Your task to perform on an android device: open app "Grab" (install if not already installed) and enter user name: "interspersion@gmail.com" and password: "aristocrats" Image 0: 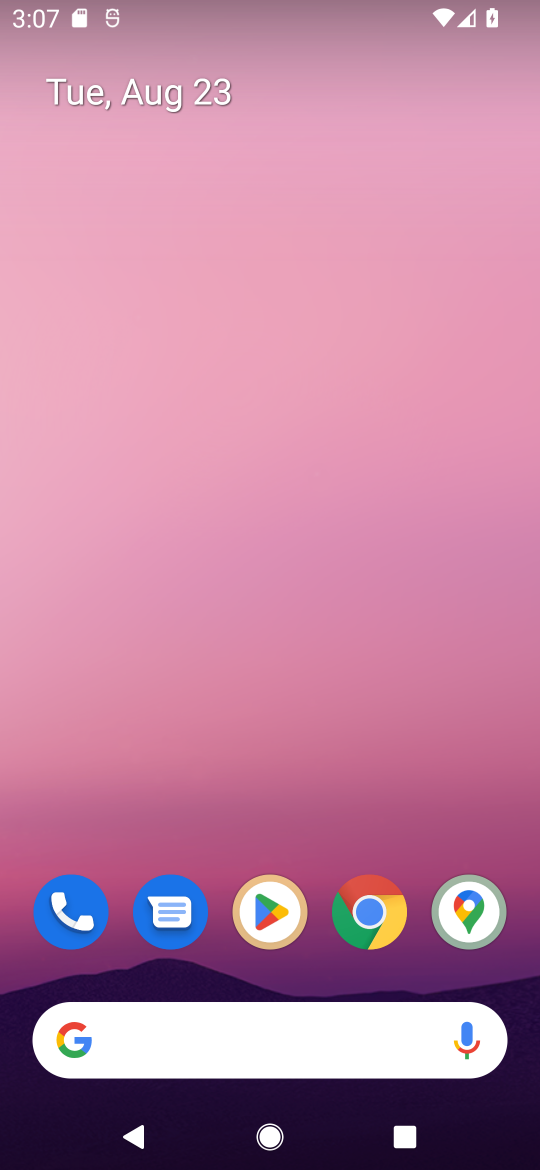
Step 0: drag from (192, 1058) to (305, 222)
Your task to perform on an android device: open app "Grab" (install if not already installed) and enter user name: "interspersion@gmail.com" and password: "aristocrats" Image 1: 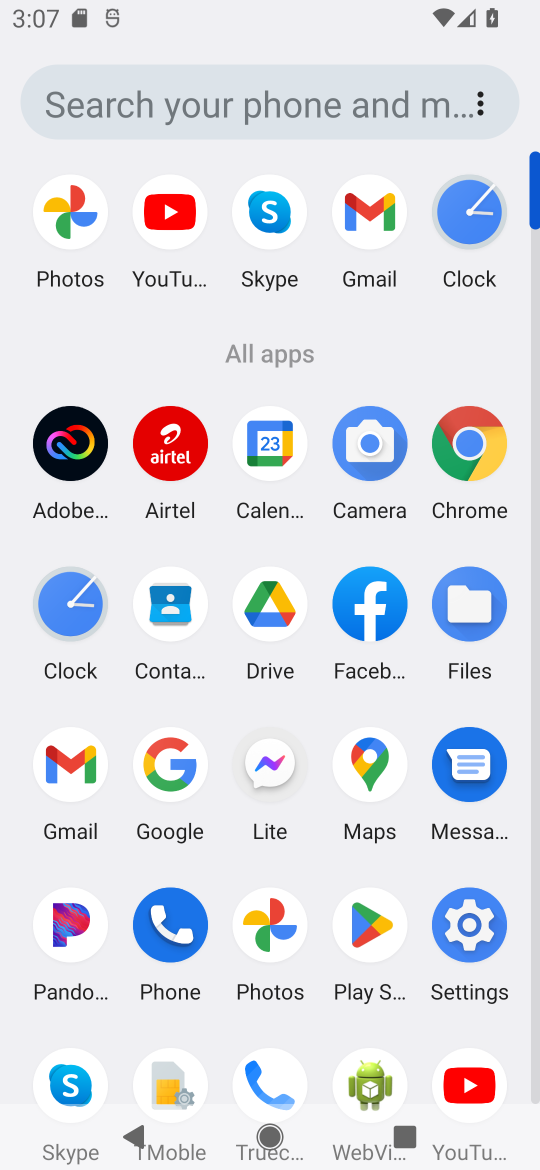
Step 1: click (371, 934)
Your task to perform on an android device: open app "Grab" (install if not already installed) and enter user name: "interspersion@gmail.com" and password: "aristocrats" Image 2: 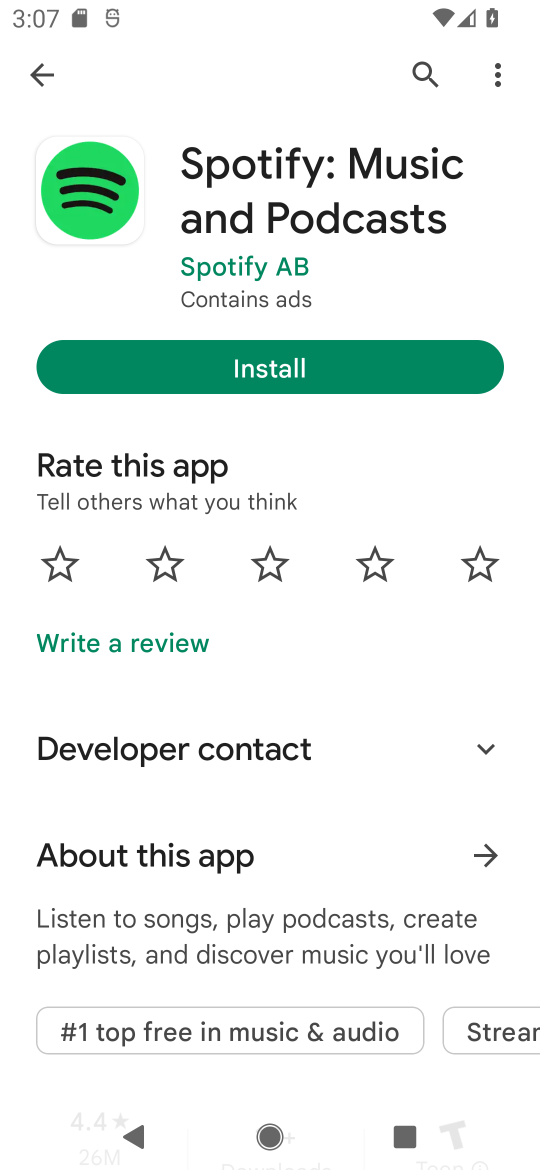
Step 2: press back button
Your task to perform on an android device: open app "Grab" (install if not already installed) and enter user name: "interspersion@gmail.com" and password: "aristocrats" Image 3: 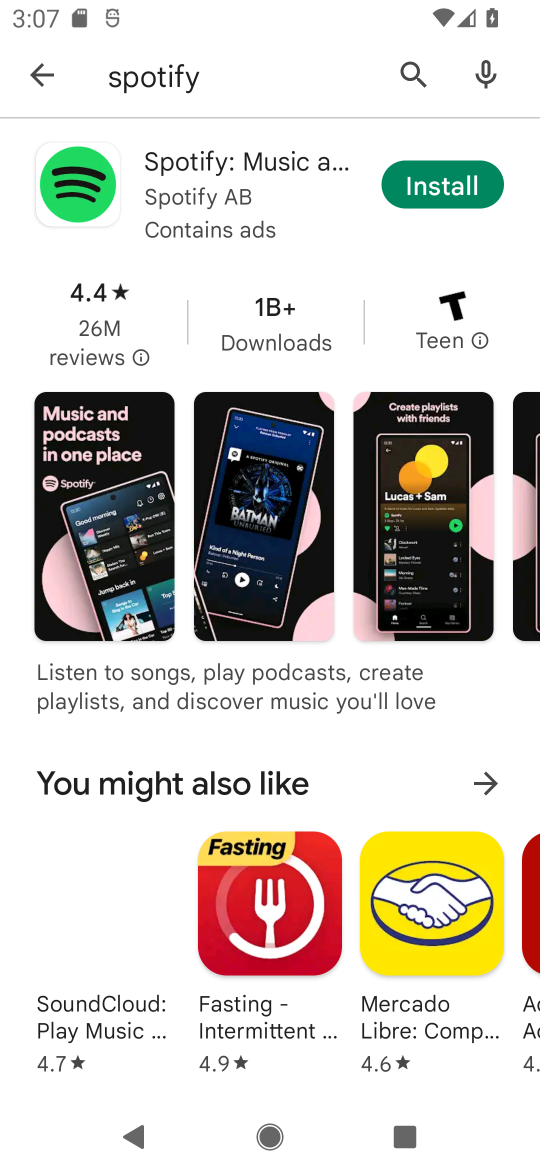
Step 3: press back button
Your task to perform on an android device: open app "Grab" (install if not already installed) and enter user name: "interspersion@gmail.com" and password: "aristocrats" Image 4: 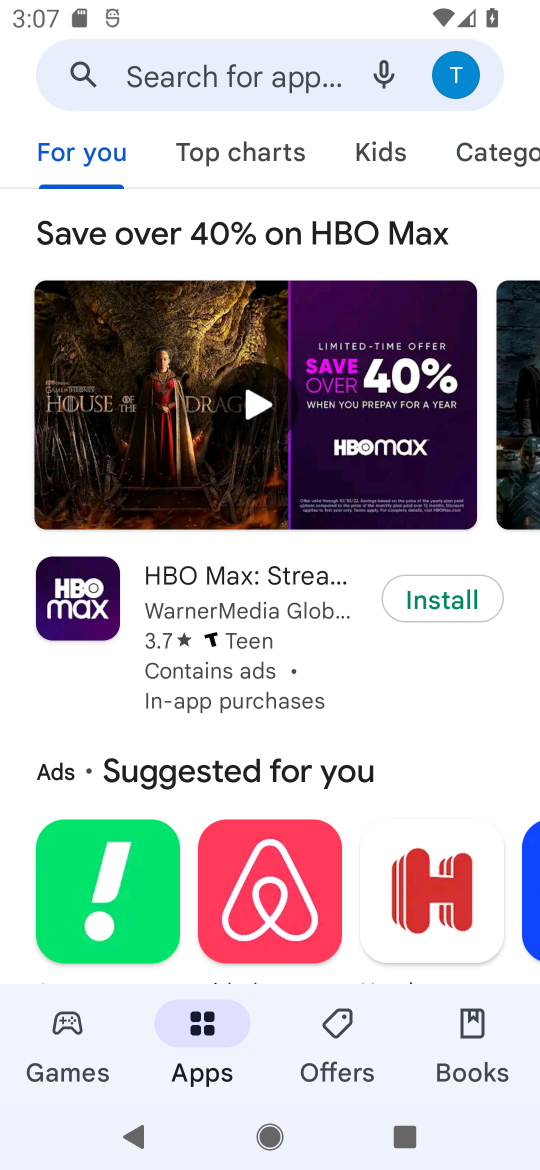
Step 4: click (201, 70)
Your task to perform on an android device: open app "Grab" (install if not already installed) and enter user name: "interspersion@gmail.com" and password: "aristocrats" Image 5: 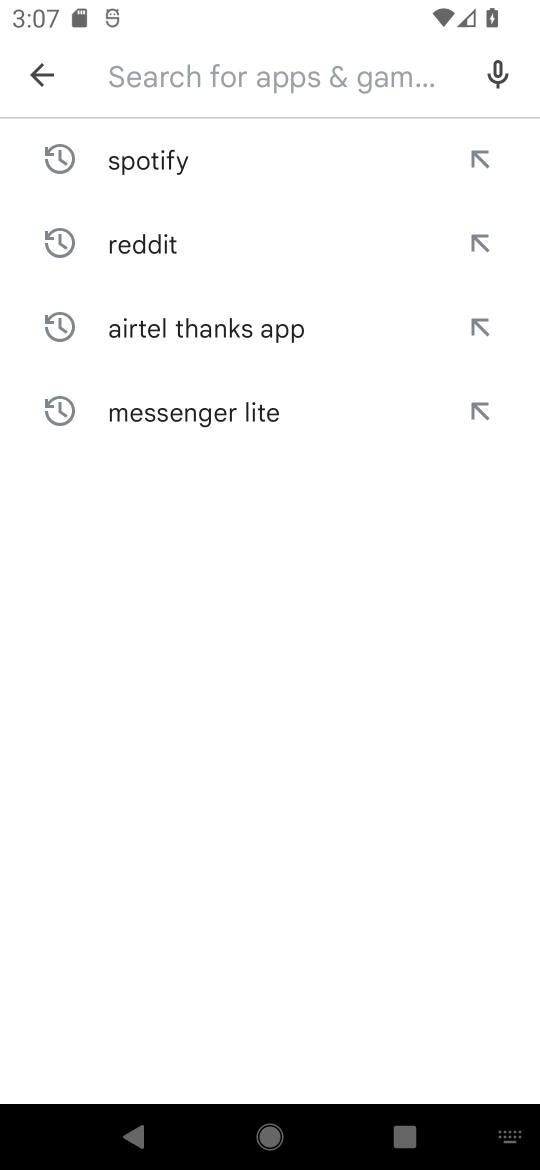
Step 5: type "Grab"
Your task to perform on an android device: open app "Grab" (install if not already installed) and enter user name: "interspersion@gmail.com" and password: "aristocrats" Image 6: 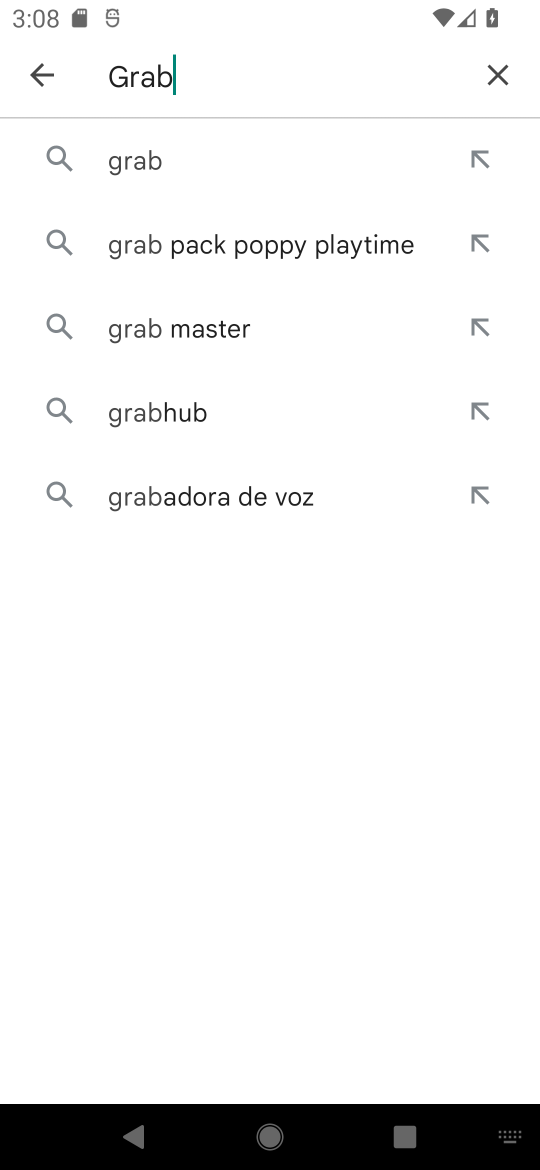
Step 6: click (130, 163)
Your task to perform on an android device: open app "Grab" (install if not already installed) and enter user name: "interspersion@gmail.com" and password: "aristocrats" Image 7: 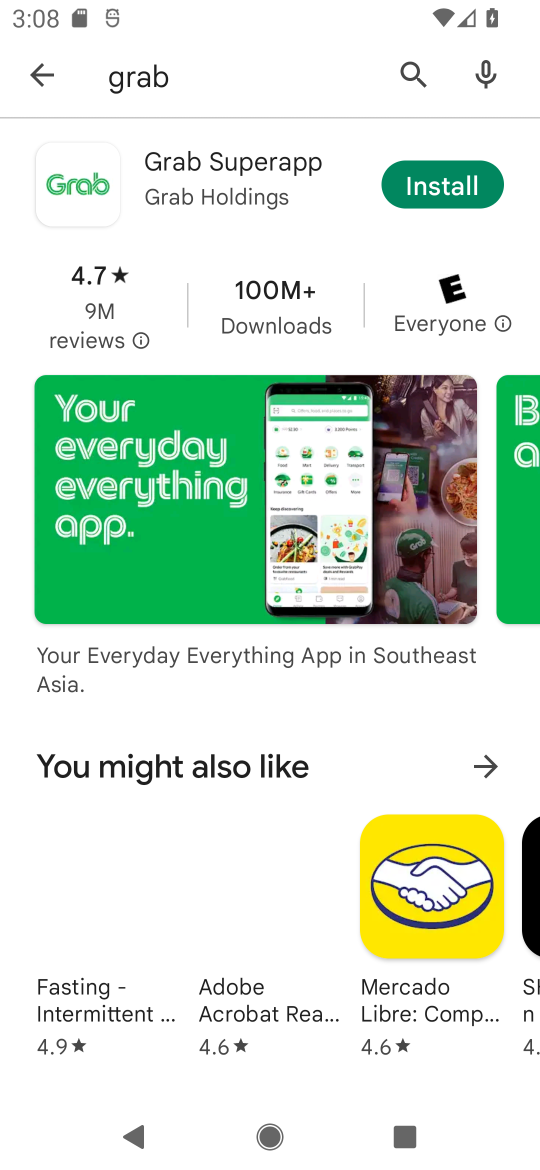
Step 7: click (437, 182)
Your task to perform on an android device: open app "Grab" (install if not already installed) and enter user name: "interspersion@gmail.com" and password: "aristocrats" Image 8: 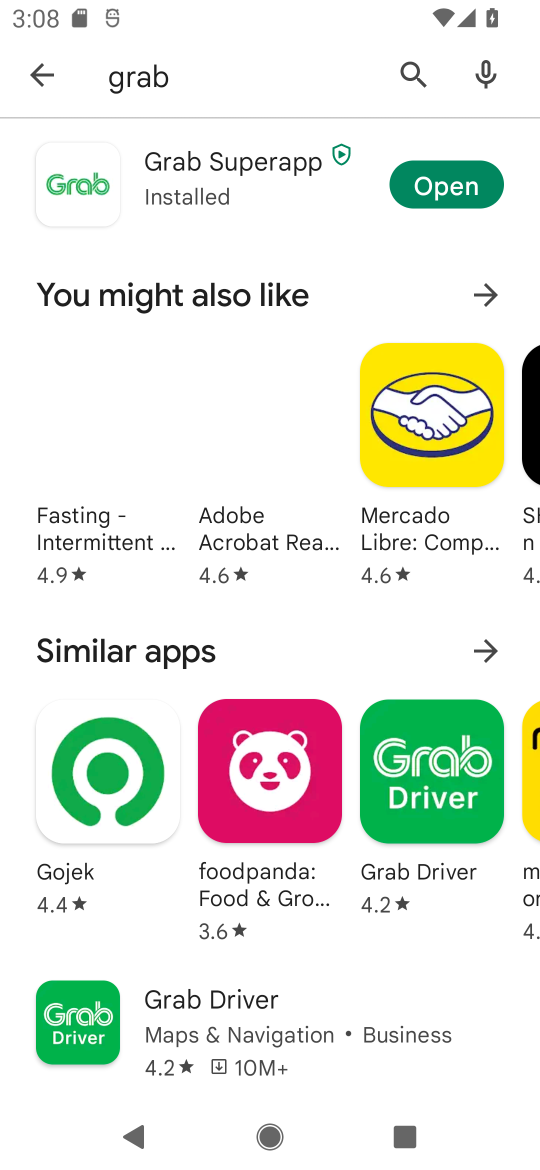
Step 8: click (437, 182)
Your task to perform on an android device: open app "Grab" (install if not already installed) and enter user name: "interspersion@gmail.com" and password: "aristocrats" Image 9: 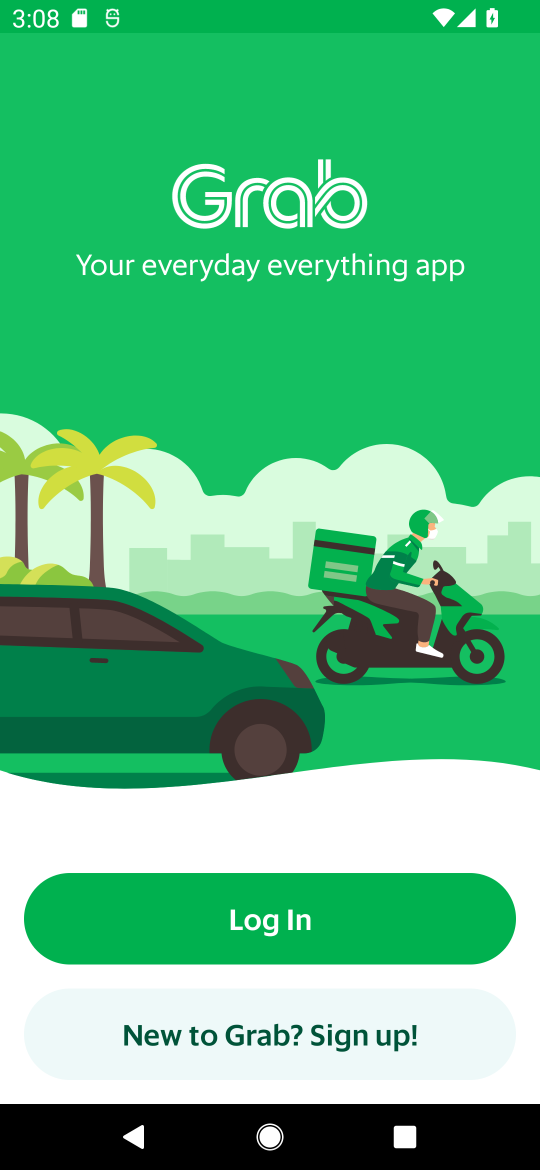
Step 9: click (266, 935)
Your task to perform on an android device: open app "Grab" (install if not already installed) and enter user name: "interspersion@gmail.com" and password: "aristocrats" Image 10: 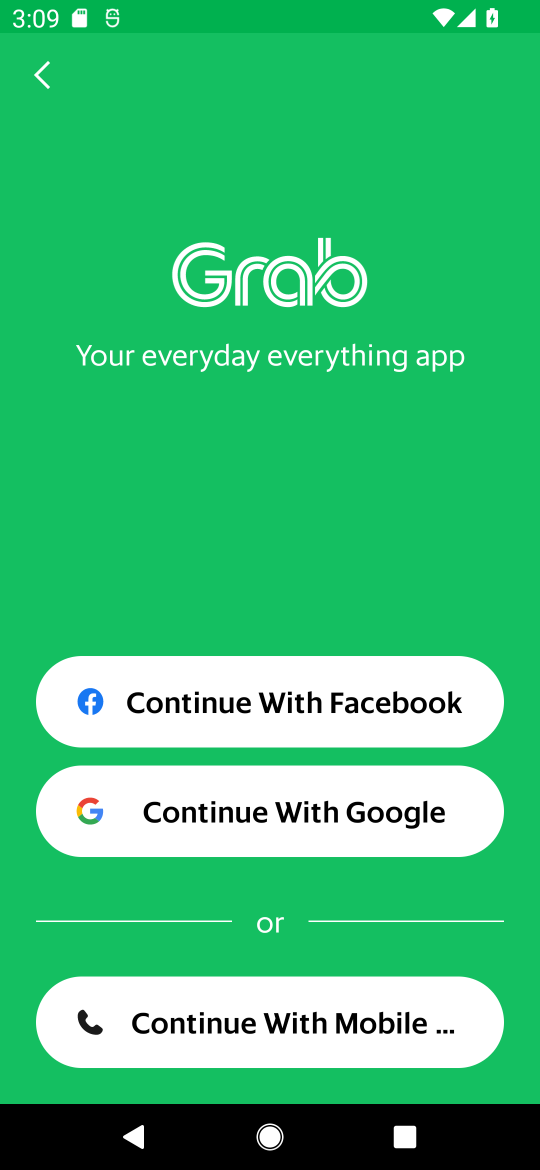
Step 10: click (288, 813)
Your task to perform on an android device: open app "Grab" (install if not already installed) and enter user name: "interspersion@gmail.com" and password: "aristocrats" Image 11: 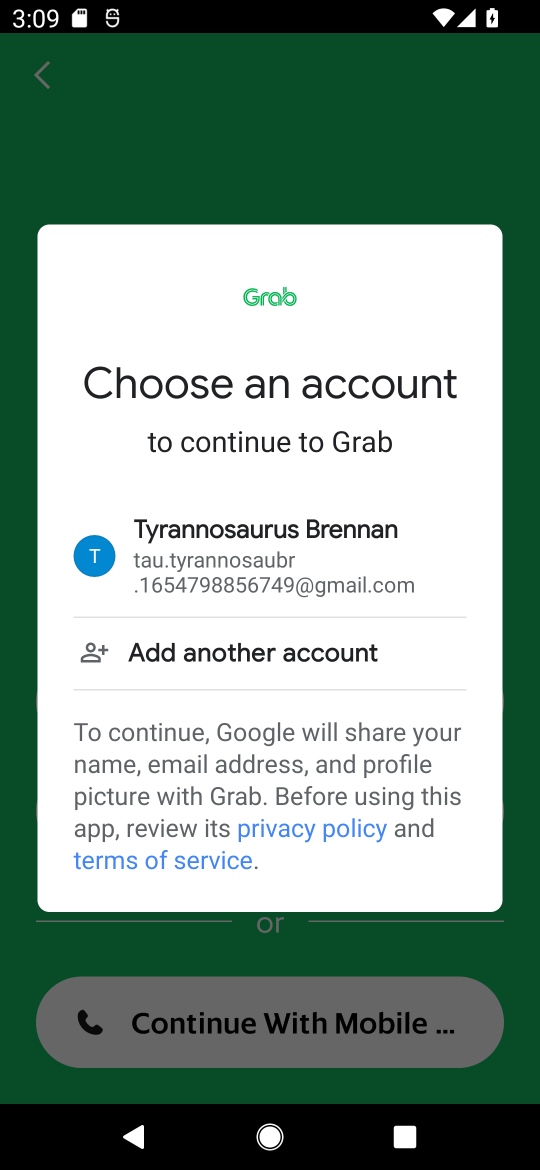
Step 11: click (318, 662)
Your task to perform on an android device: open app "Grab" (install if not already installed) and enter user name: "interspersion@gmail.com" and password: "aristocrats" Image 12: 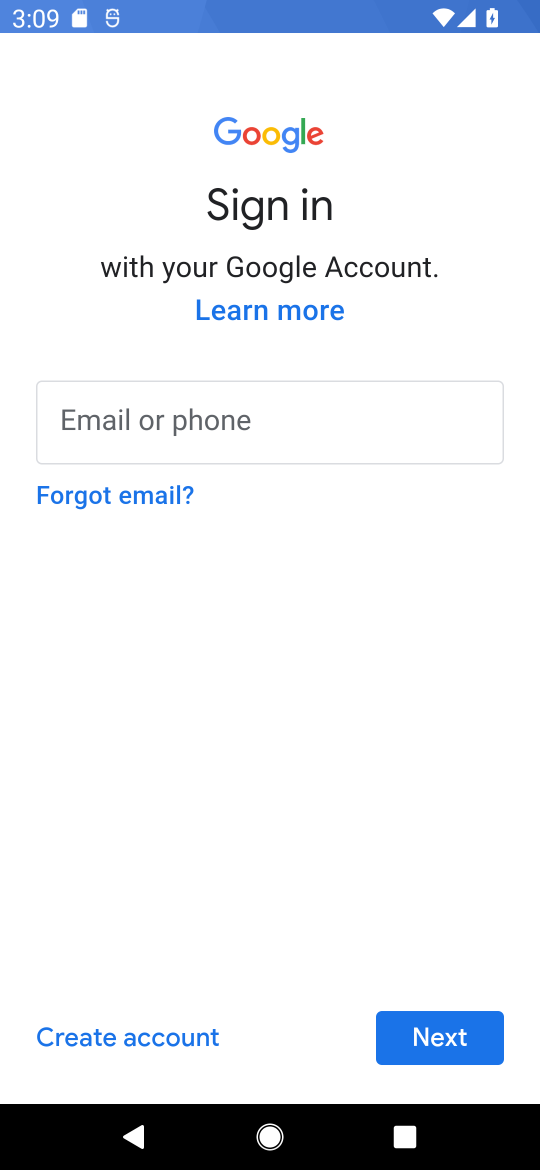
Step 12: click (254, 434)
Your task to perform on an android device: open app "Grab" (install if not already installed) and enter user name: "interspersion@gmail.com" and password: "aristocrats" Image 13: 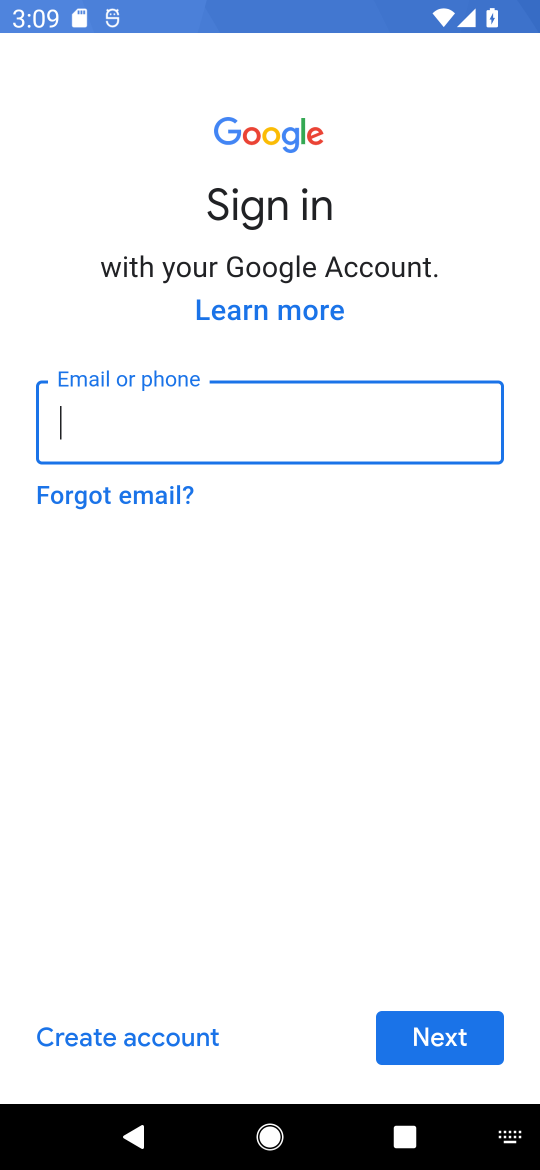
Step 13: click (103, 426)
Your task to perform on an android device: open app "Grab" (install if not already installed) and enter user name: "interspersion@gmail.com" and password: "aristocrats" Image 14: 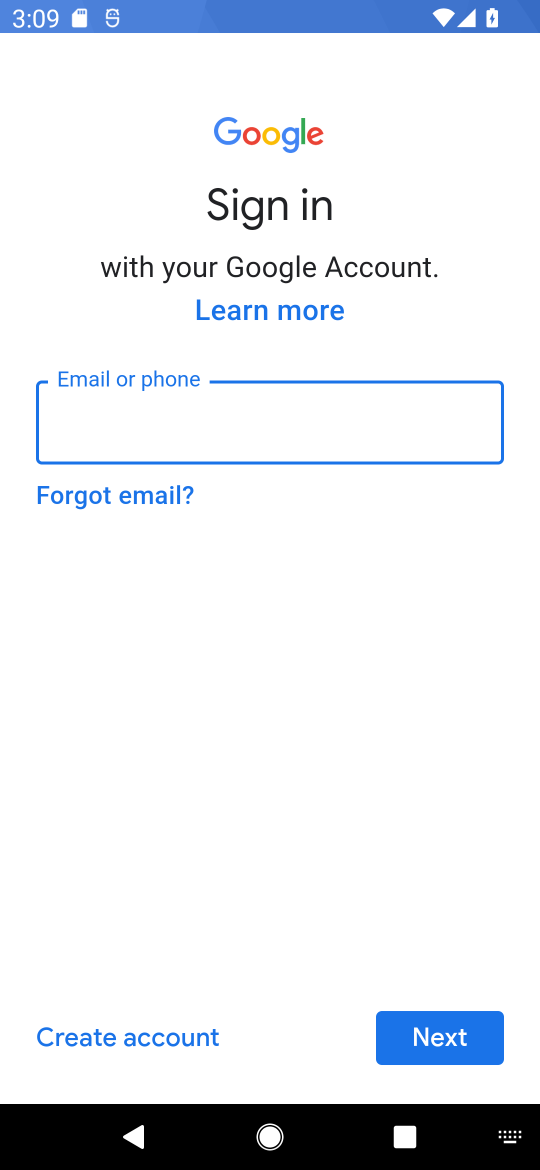
Step 14: type "interspersion@gmail.com"
Your task to perform on an android device: open app "Grab" (install if not already installed) and enter user name: "interspersion@gmail.com" and password: "aristocrats" Image 15: 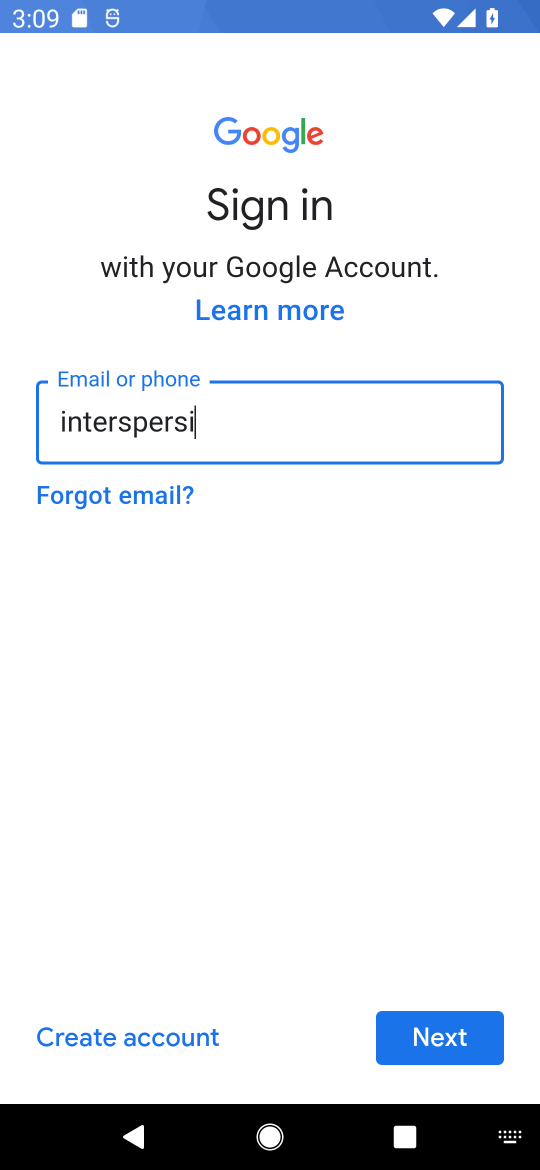
Step 15: type ""
Your task to perform on an android device: open app "Grab" (install if not already installed) and enter user name: "interspersion@gmail.com" and password: "aristocrats" Image 16: 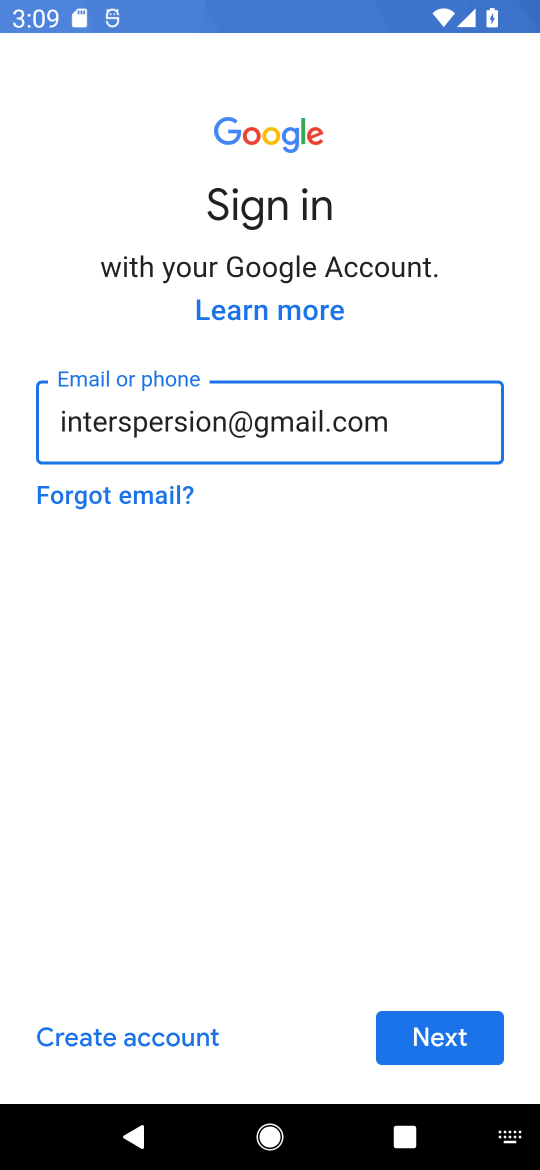
Step 16: click (444, 1040)
Your task to perform on an android device: open app "Grab" (install if not already installed) and enter user name: "interspersion@gmail.com" and password: "aristocrats" Image 17: 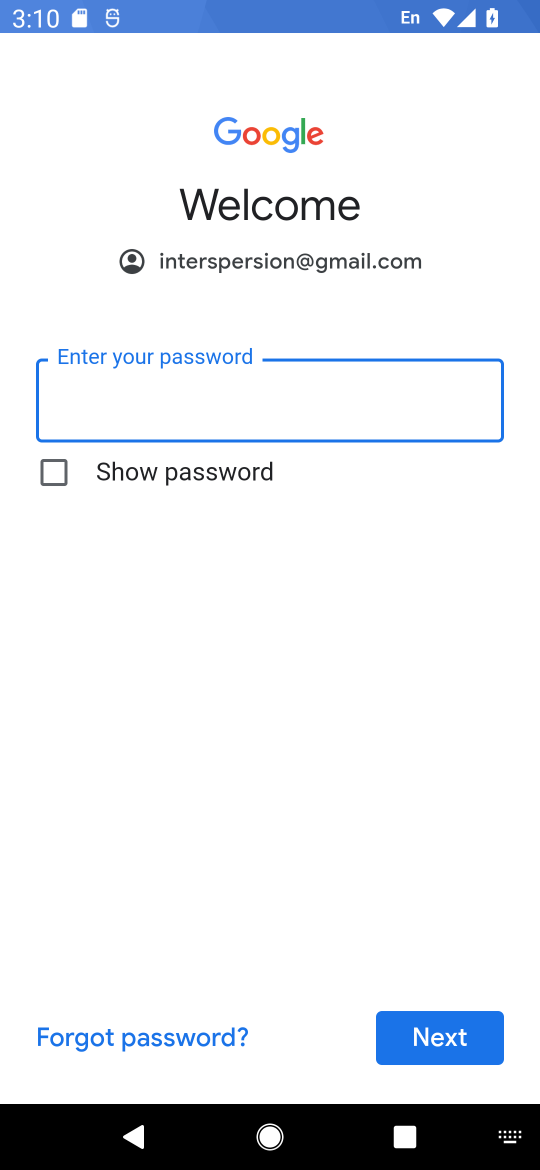
Step 17: type "aristocrats"
Your task to perform on an android device: open app "Grab" (install if not already installed) and enter user name: "interspersion@gmail.com" and password: "aristocrats" Image 18: 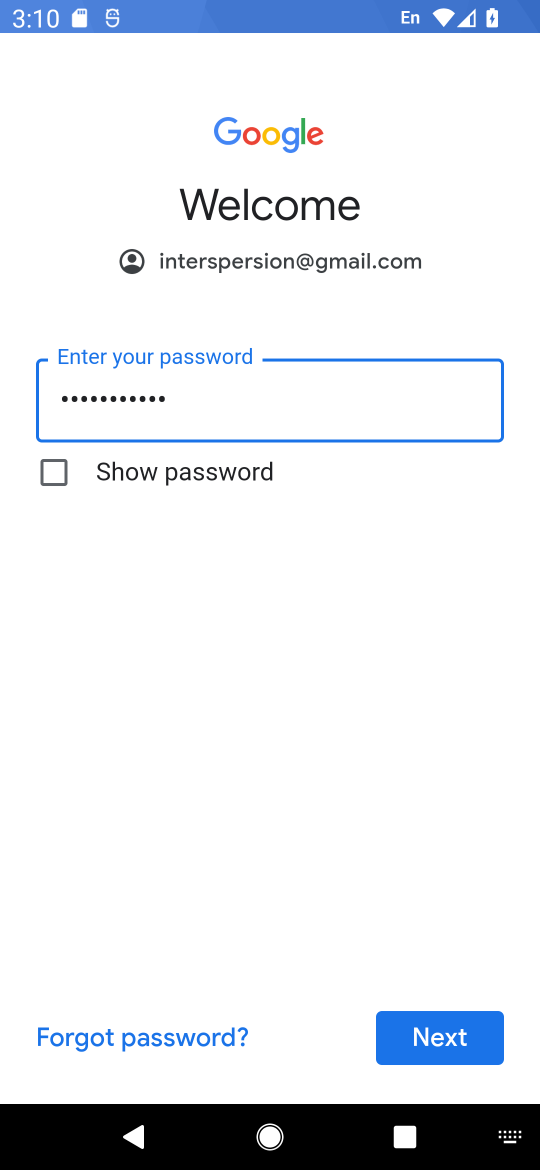
Step 18: task complete